Your task to perform on an android device: What is the capital of Brazil? Image 0: 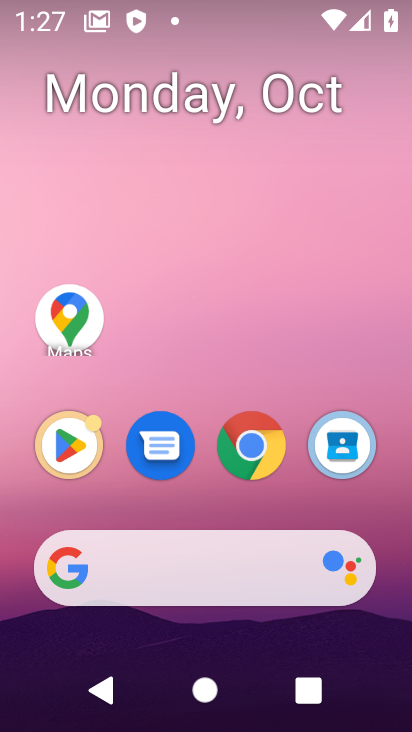
Step 0: click (199, 578)
Your task to perform on an android device: What is the capital of Brazil? Image 1: 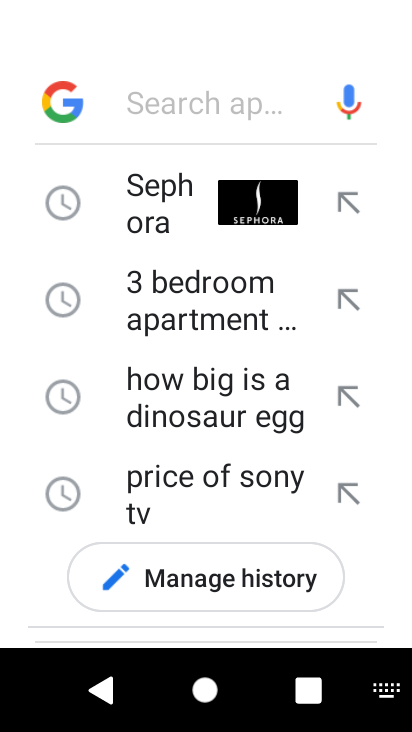
Step 1: type ""
Your task to perform on an android device: What is the capital of Brazil? Image 2: 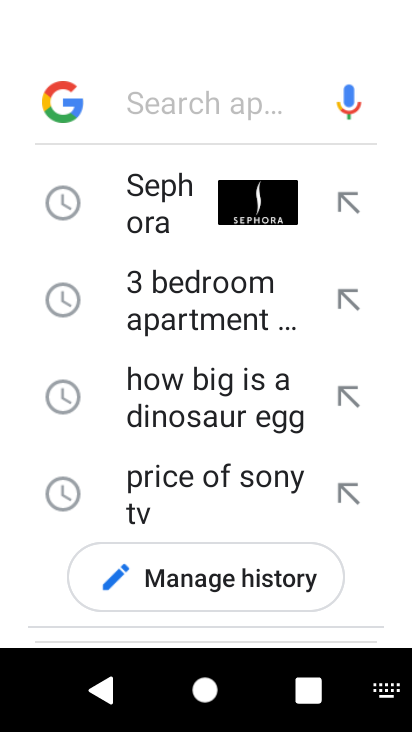
Step 2: type "capital of Brazil"
Your task to perform on an android device: What is the capital of Brazil? Image 3: 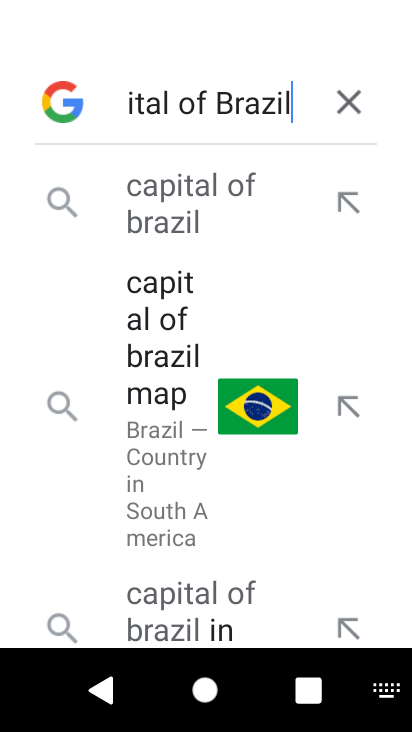
Step 3: type ""
Your task to perform on an android device: What is the capital of Brazil? Image 4: 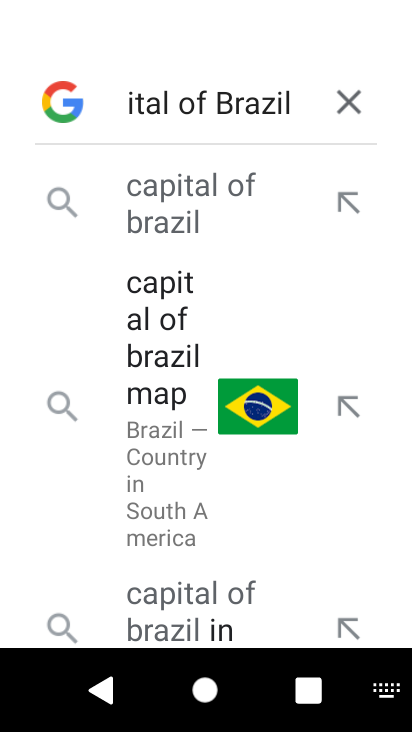
Step 4: click (199, 207)
Your task to perform on an android device: What is the capital of Brazil? Image 5: 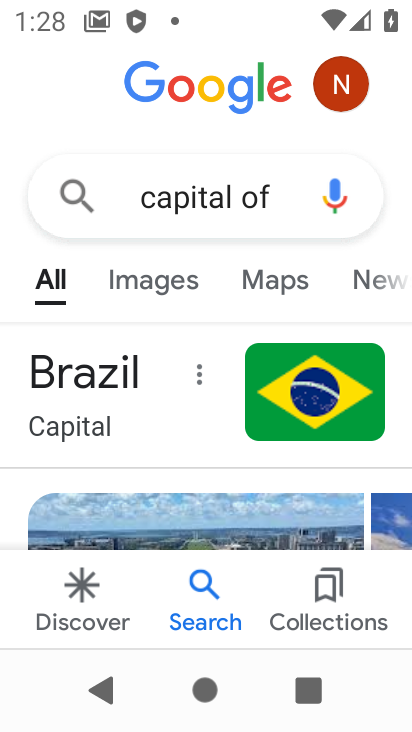
Step 5: task complete